Your task to perform on an android device: Open Google Chrome Image 0: 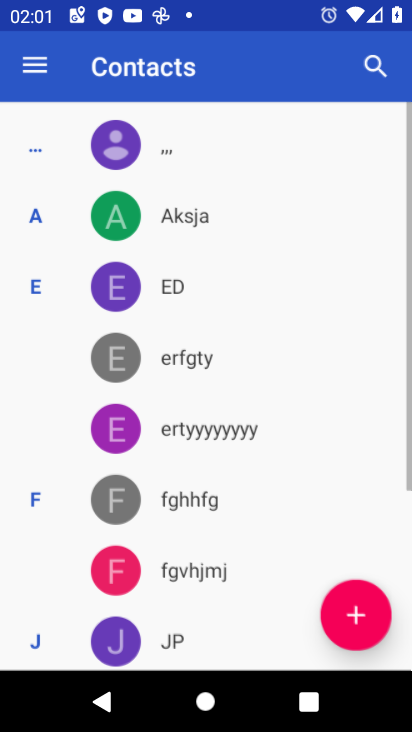
Step 0: drag from (187, 646) to (231, 113)
Your task to perform on an android device: Open Google Chrome Image 1: 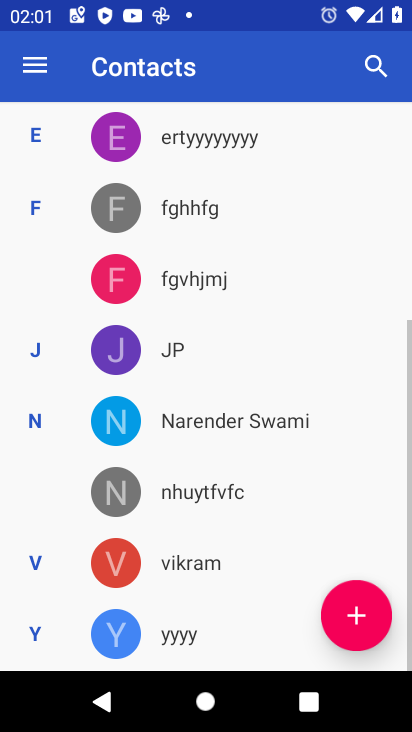
Step 1: press home button
Your task to perform on an android device: Open Google Chrome Image 2: 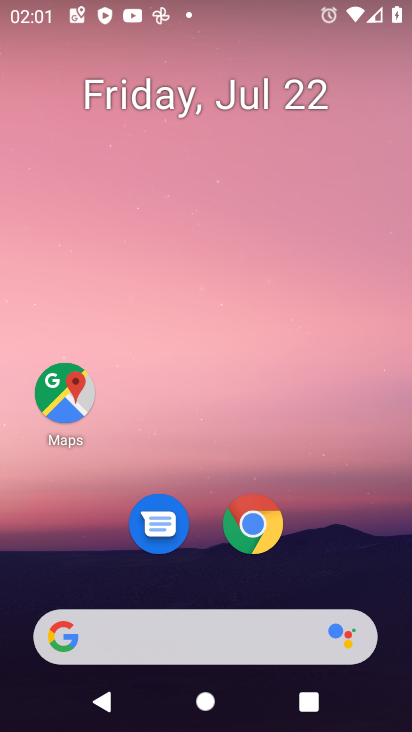
Step 2: click (252, 530)
Your task to perform on an android device: Open Google Chrome Image 3: 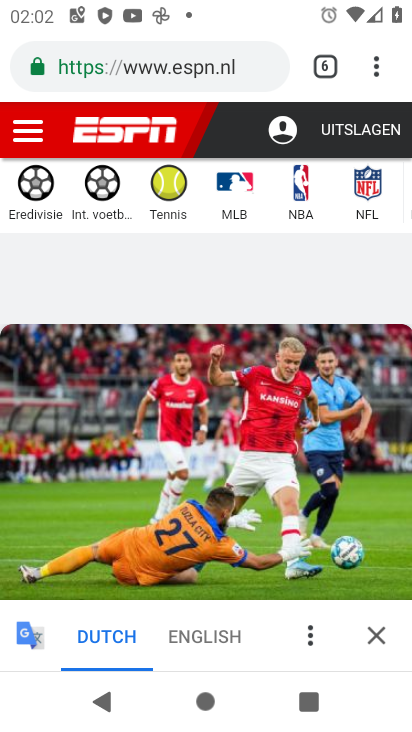
Step 3: task complete